Your task to perform on an android device: Open ESPN.com Image 0: 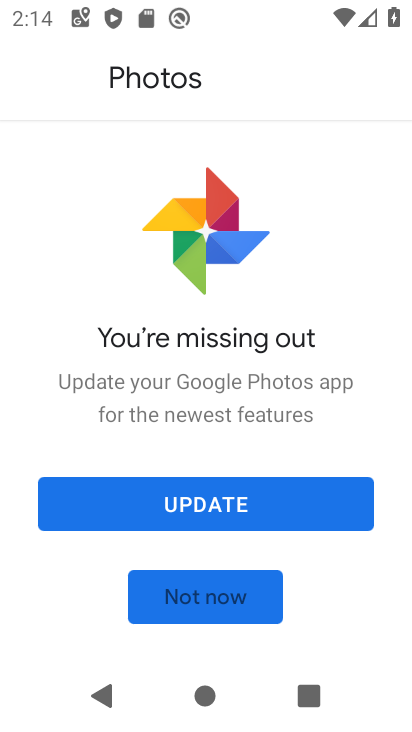
Step 0: press home button
Your task to perform on an android device: Open ESPN.com Image 1: 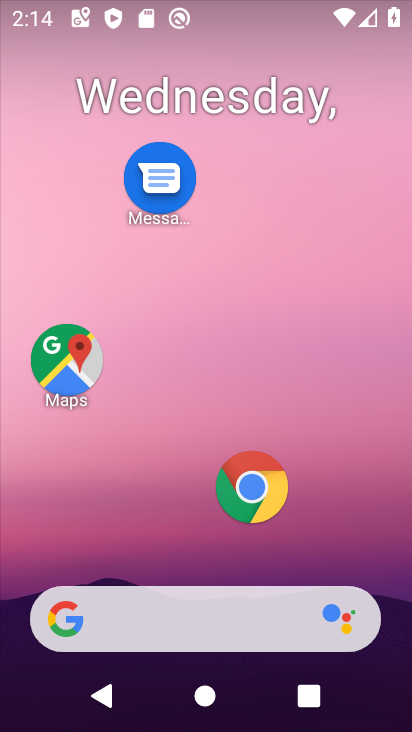
Step 1: click (197, 617)
Your task to perform on an android device: Open ESPN.com Image 2: 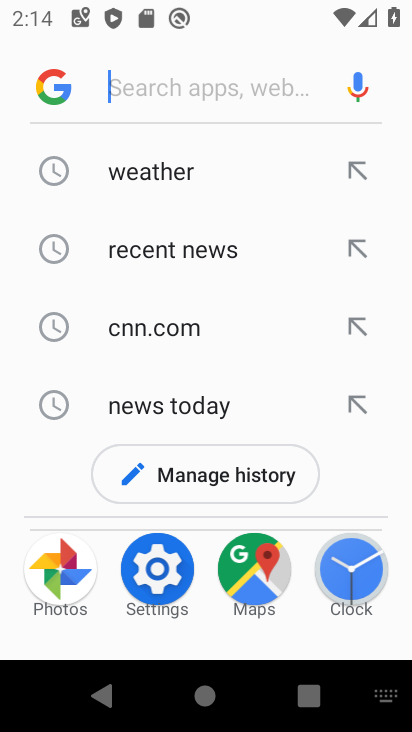
Step 2: type "ESPN.com"
Your task to perform on an android device: Open ESPN.com Image 3: 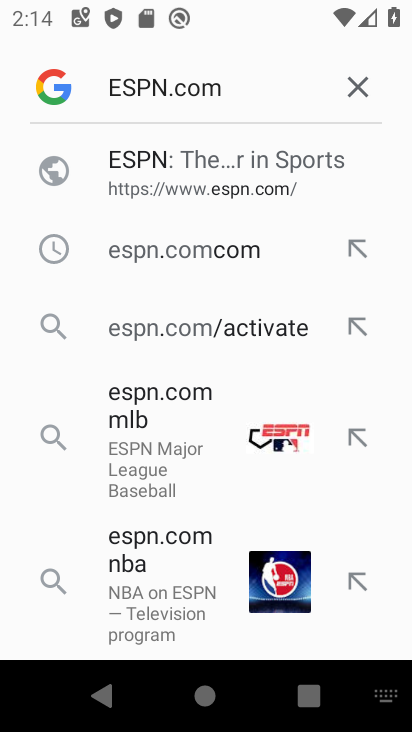
Step 3: drag from (219, 329) to (258, 148)
Your task to perform on an android device: Open ESPN.com Image 4: 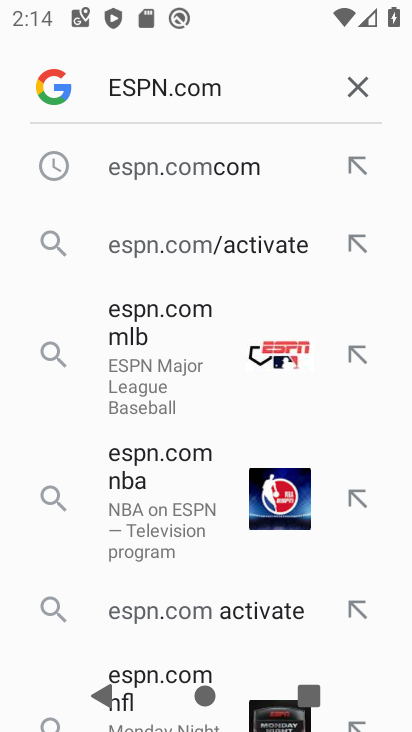
Step 4: drag from (240, 480) to (290, 190)
Your task to perform on an android device: Open ESPN.com Image 5: 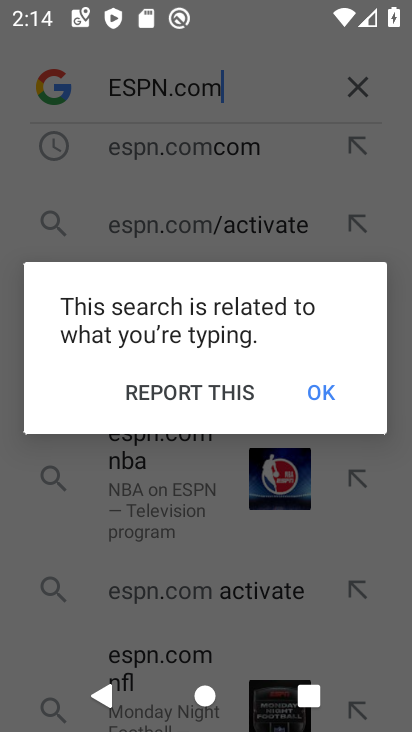
Step 5: click (313, 383)
Your task to perform on an android device: Open ESPN.com Image 6: 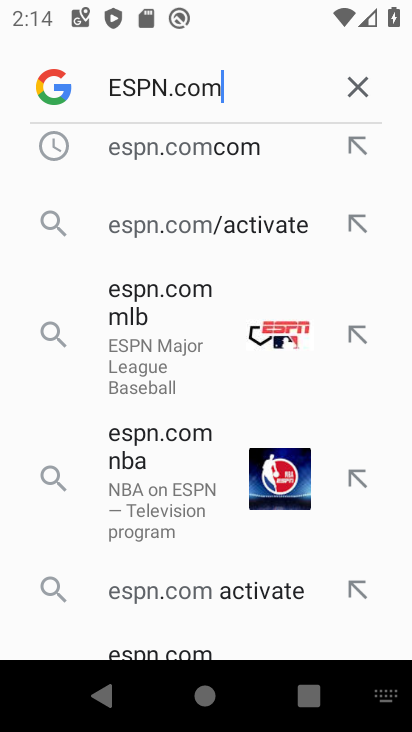
Step 6: drag from (181, 537) to (213, 496)
Your task to perform on an android device: Open ESPN.com Image 7: 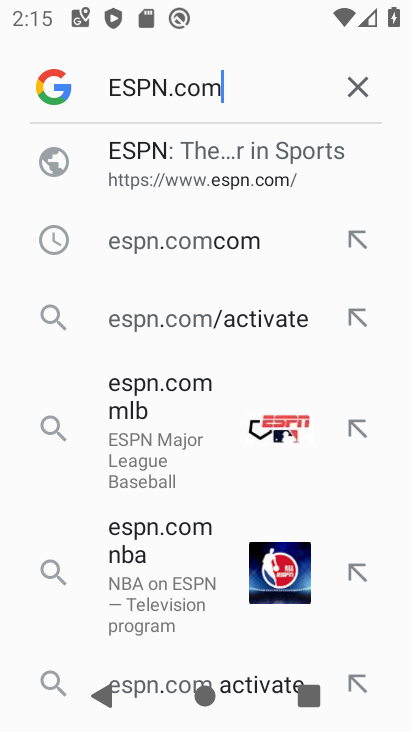
Step 7: click (222, 161)
Your task to perform on an android device: Open ESPN.com Image 8: 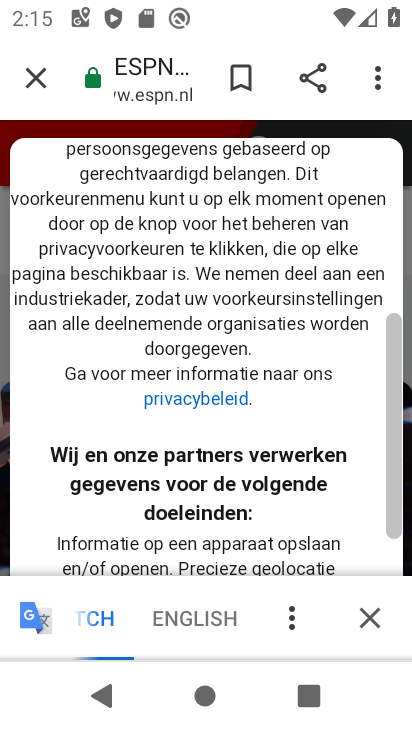
Step 8: task complete